Your task to perform on an android device: check storage Image 0: 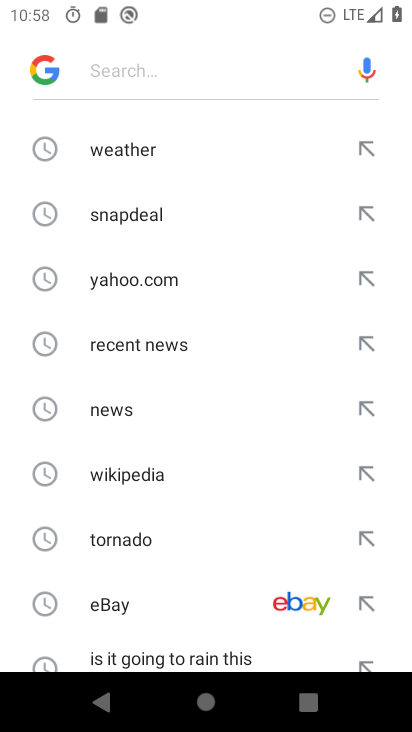
Step 0: press home button
Your task to perform on an android device: check storage Image 1: 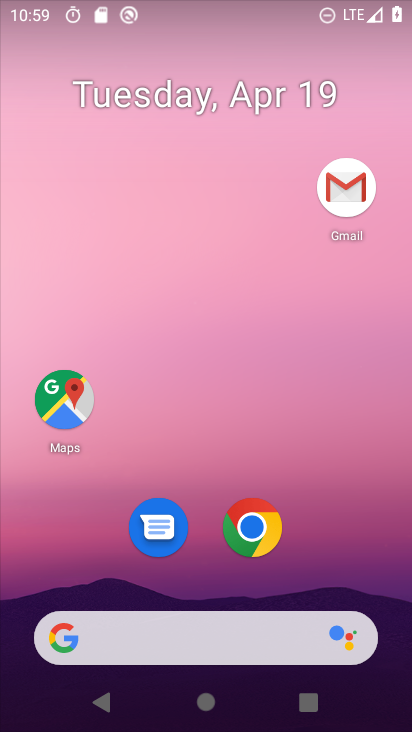
Step 1: drag from (377, 194) to (380, 88)
Your task to perform on an android device: check storage Image 2: 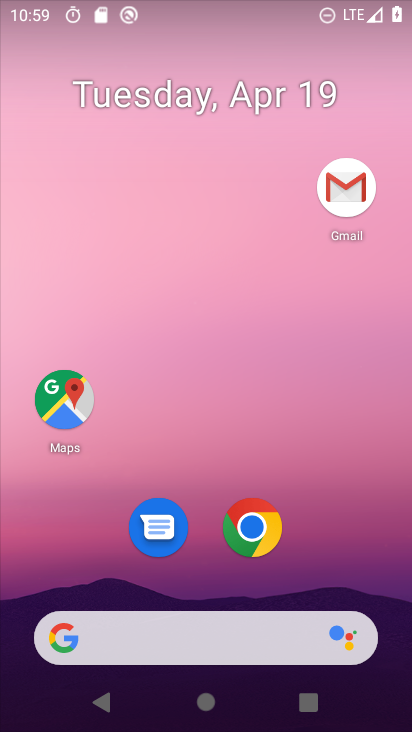
Step 2: drag from (376, 541) to (388, 112)
Your task to perform on an android device: check storage Image 3: 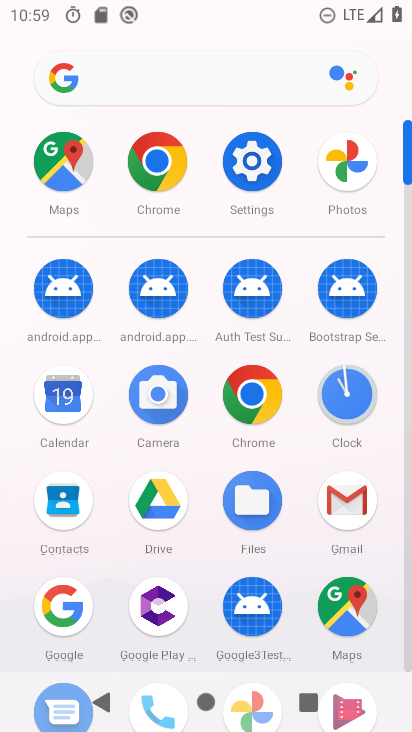
Step 3: click (257, 180)
Your task to perform on an android device: check storage Image 4: 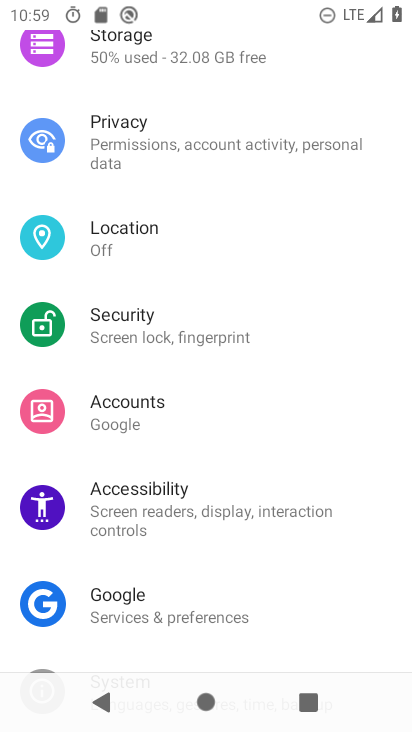
Step 4: drag from (361, 575) to (359, 268)
Your task to perform on an android device: check storage Image 5: 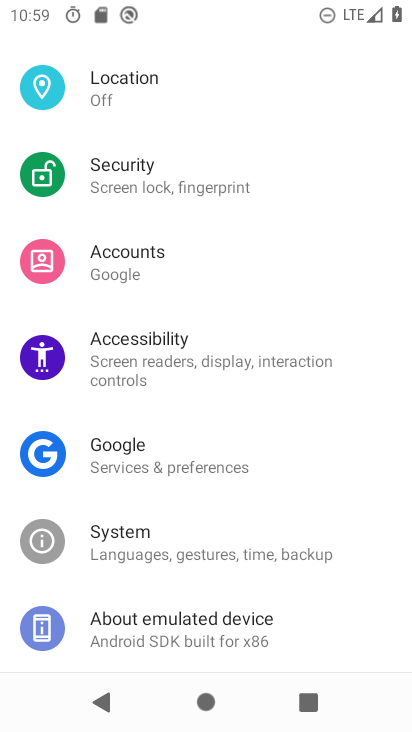
Step 5: drag from (237, 105) to (295, 510)
Your task to perform on an android device: check storage Image 6: 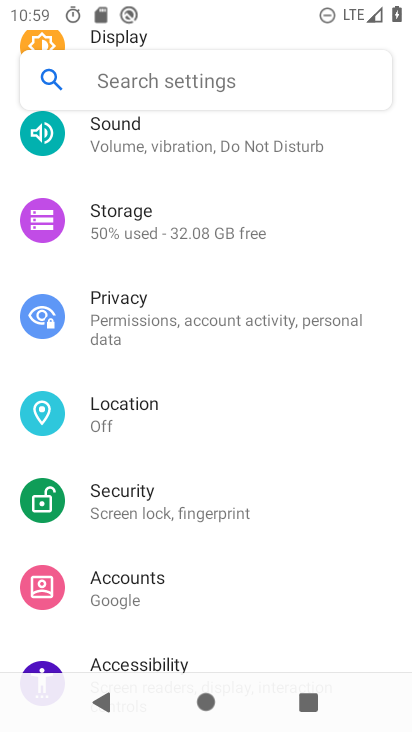
Step 6: click (133, 215)
Your task to perform on an android device: check storage Image 7: 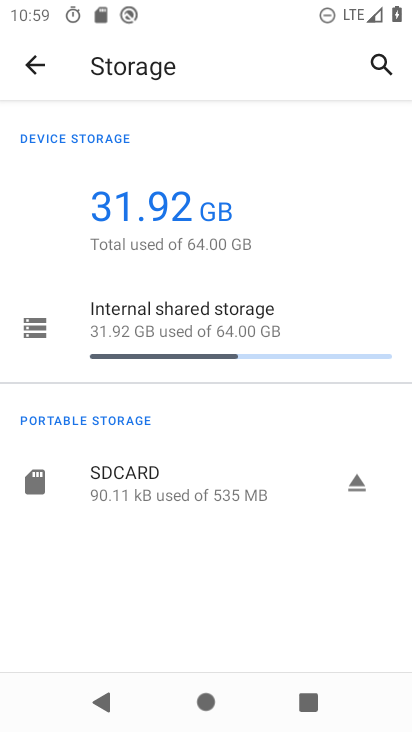
Step 7: click (46, 338)
Your task to perform on an android device: check storage Image 8: 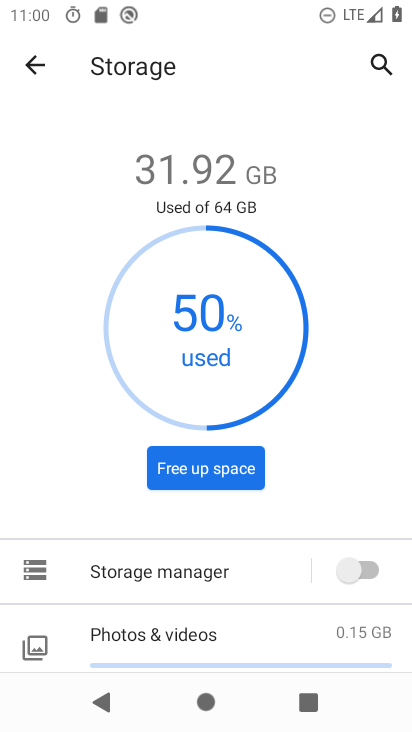
Step 8: task complete